Your task to perform on an android device: Play the last video I watched on Youtube Image 0: 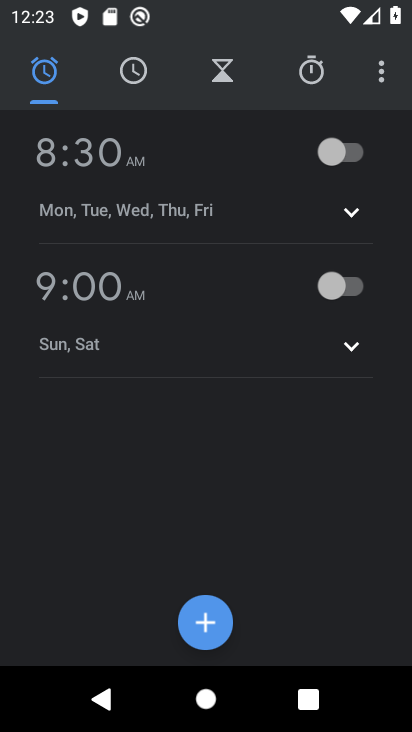
Step 0: press home button
Your task to perform on an android device: Play the last video I watched on Youtube Image 1: 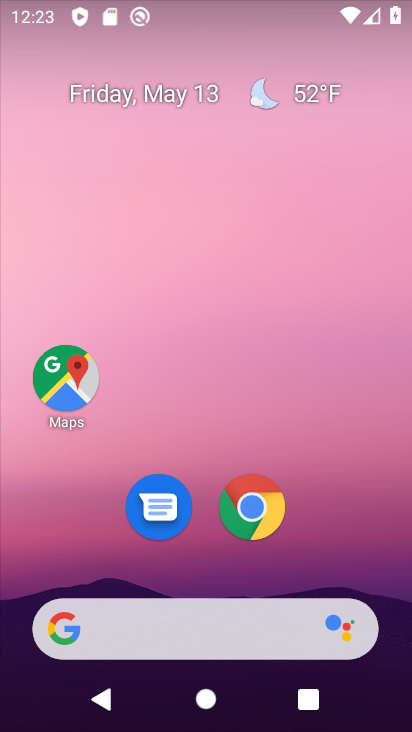
Step 1: drag from (246, 475) to (289, 153)
Your task to perform on an android device: Play the last video I watched on Youtube Image 2: 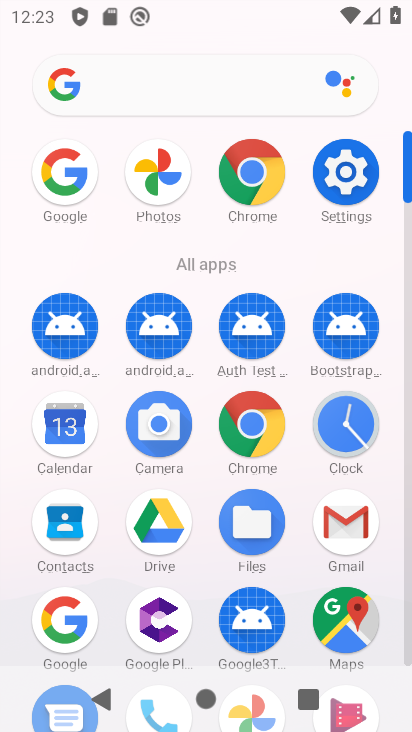
Step 2: drag from (223, 591) to (282, 295)
Your task to perform on an android device: Play the last video I watched on Youtube Image 3: 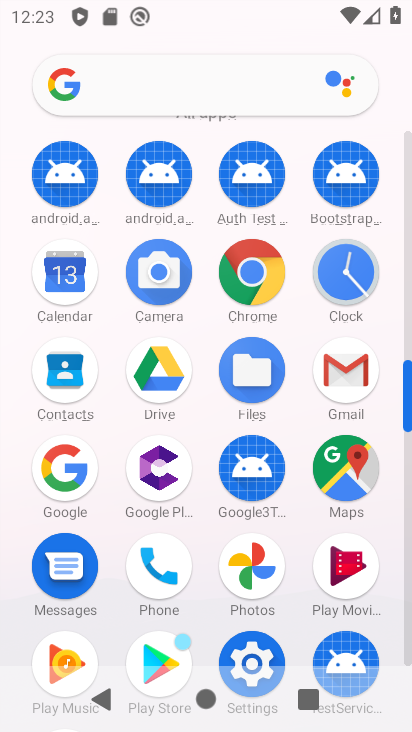
Step 3: drag from (211, 569) to (251, 313)
Your task to perform on an android device: Play the last video I watched on Youtube Image 4: 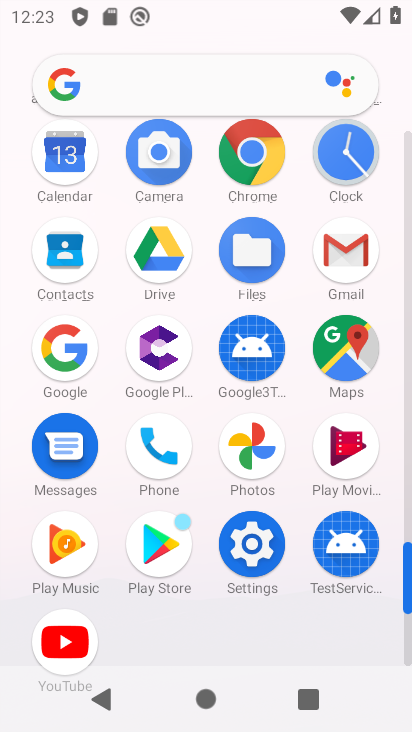
Step 4: click (64, 641)
Your task to perform on an android device: Play the last video I watched on Youtube Image 5: 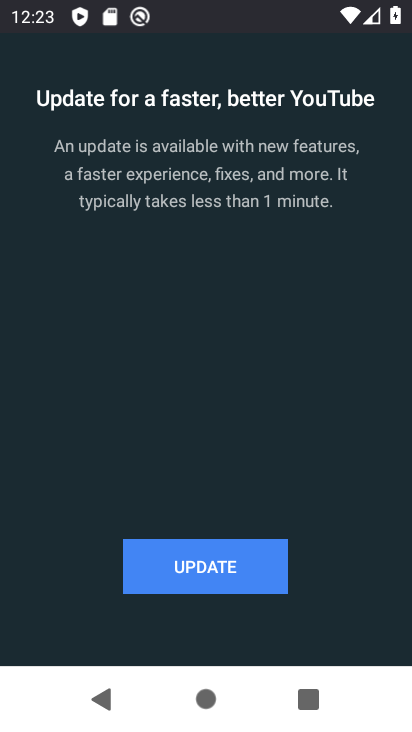
Step 5: click (204, 572)
Your task to perform on an android device: Play the last video I watched on Youtube Image 6: 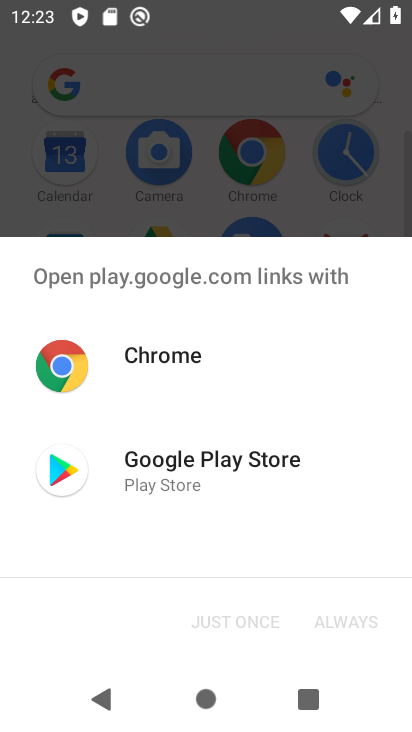
Step 6: click (221, 463)
Your task to perform on an android device: Play the last video I watched on Youtube Image 7: 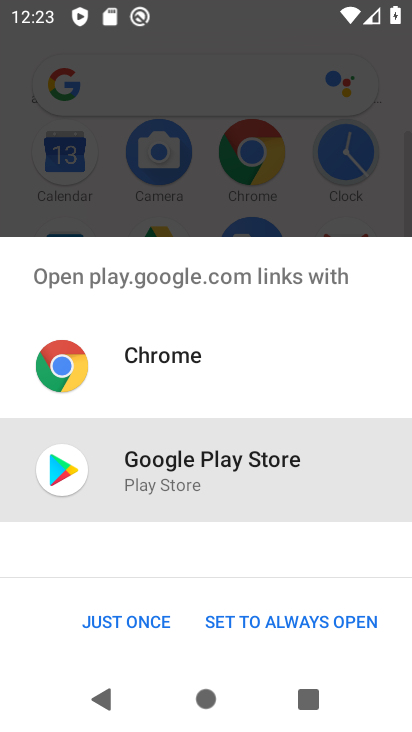
Step 7: click (319, 614)
Your task to perform on an android device: Play the last video I watched on Youtube Image 8: 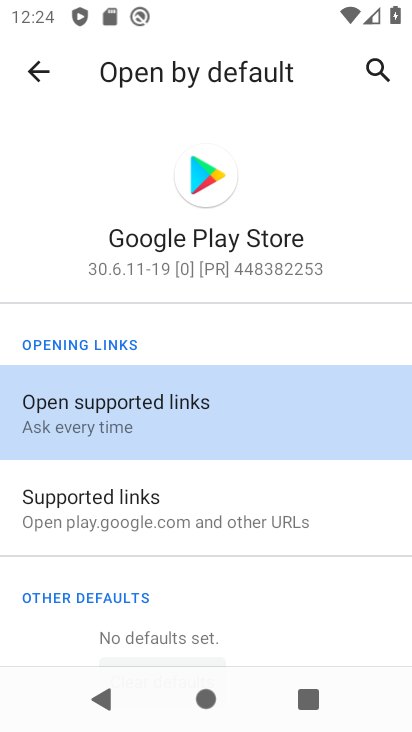
Step 8: click (194, 208)
Your task to perform on an android device: Play the last video I watched on Youtube Image 9: 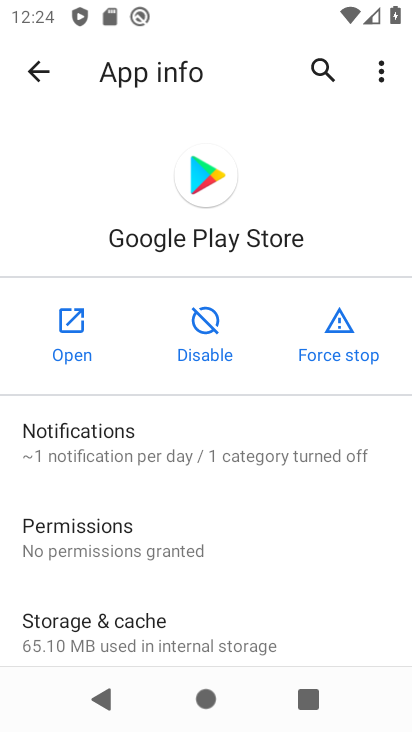
Step 9: click (61, 327)
Your task to perform on an android device: Play the last video I watched on Youtube Image 10: 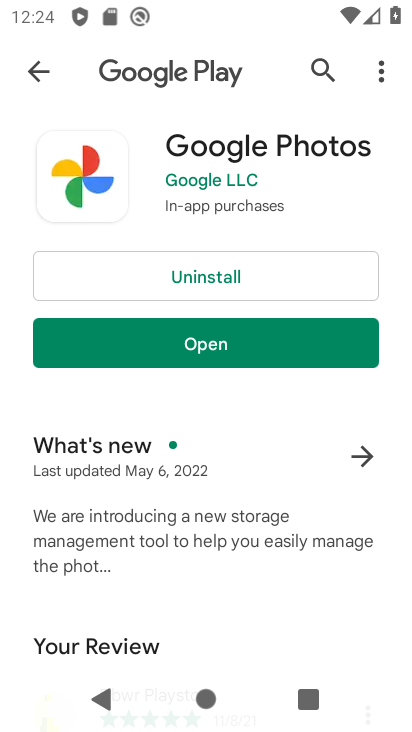
Step 10: click (199, 283)
Your task to perform on an android device: Play the last video I watched on Youtube Image 11: 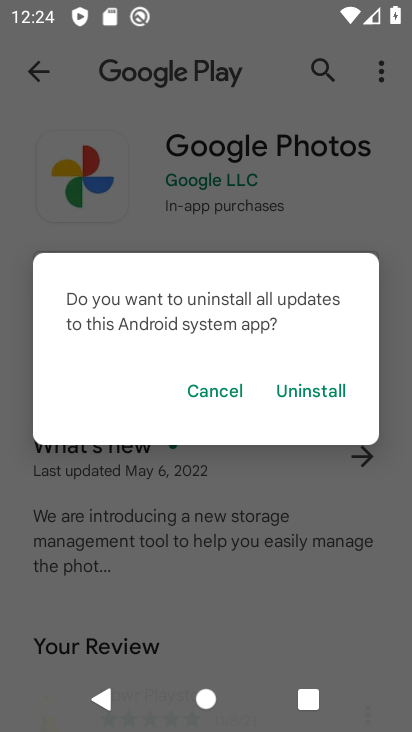
Step 11: click (213, 386)
Your task to perform on an android device: Play the last video I watched on Youtube Image 12: 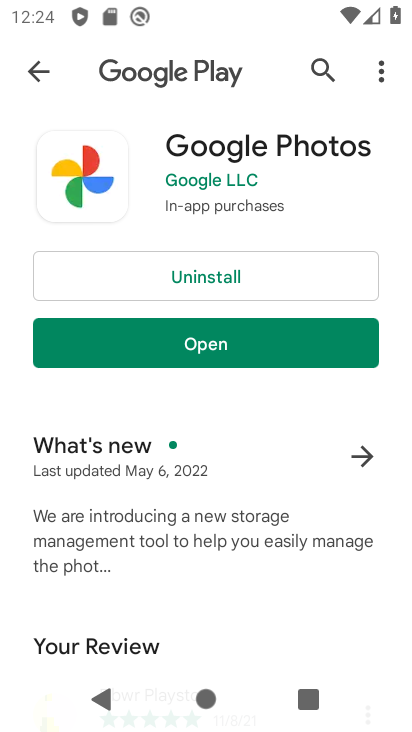
Step 12: click (316, 61)
Your task to perform on an android device: Play the last video I watched on Youtube Image 13: 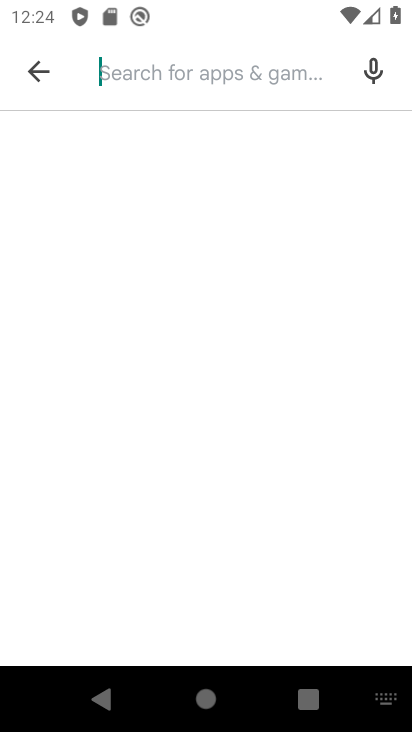
Step 13: click (169, 72)
Your task to perform on an android device: Play the last video I watched on Youtube Image 14: 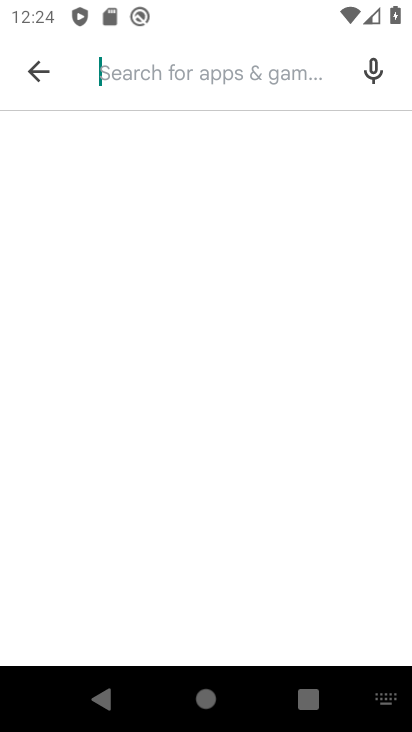
Step 14: type "youtube"
Your task to perform on an android device: Play the last video I watched on Youtube Image 15: 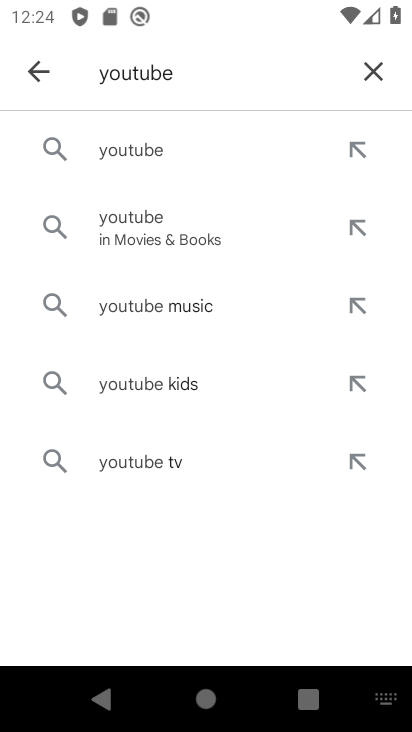
Step 15: click (134, 145)
Your task to perform on an android device: Play the last video I watched on Youtube Image 16: 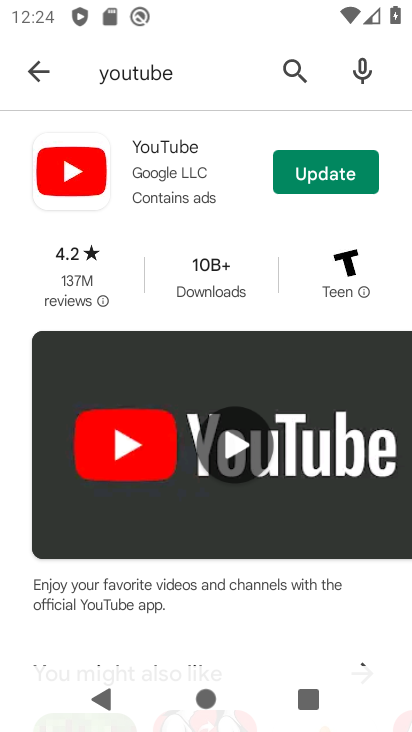
Step 16: click (289, 159)
Your task to perform on an android device: Play the last video I watched on Youtube Image 17: 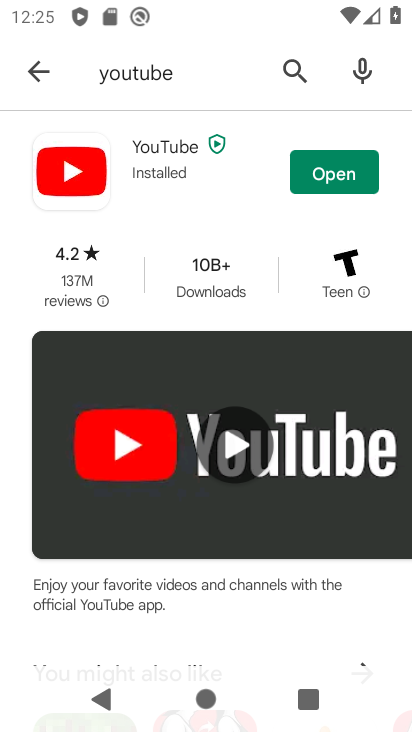
Step 17: click (324, 166)
Your task to perform on an android device: Play the last video I watched on Youtube Image 18: 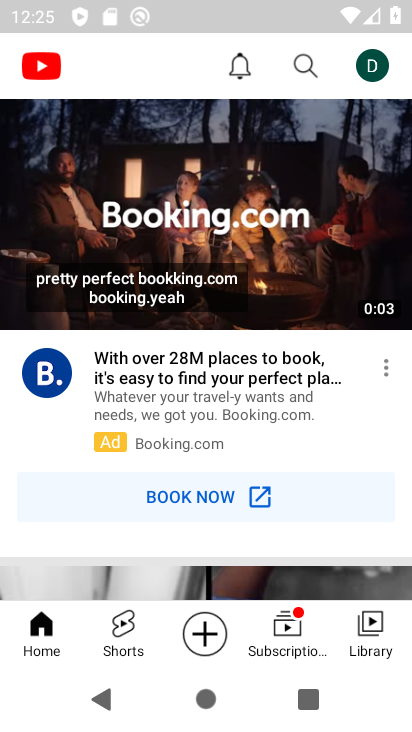
Step 18: click (362, 638)
Your task to perform on an android device: Play the last video I watched on Youtube Image 19: 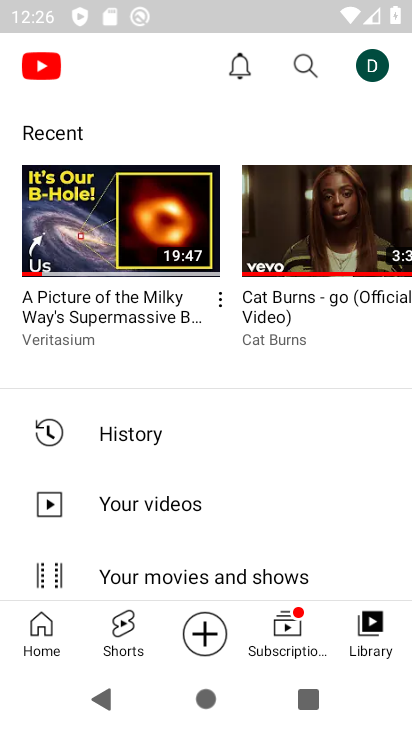
Step 19: task complete